Your task to perform on an android device: Show me productivity apps on the Play Store Image 0: 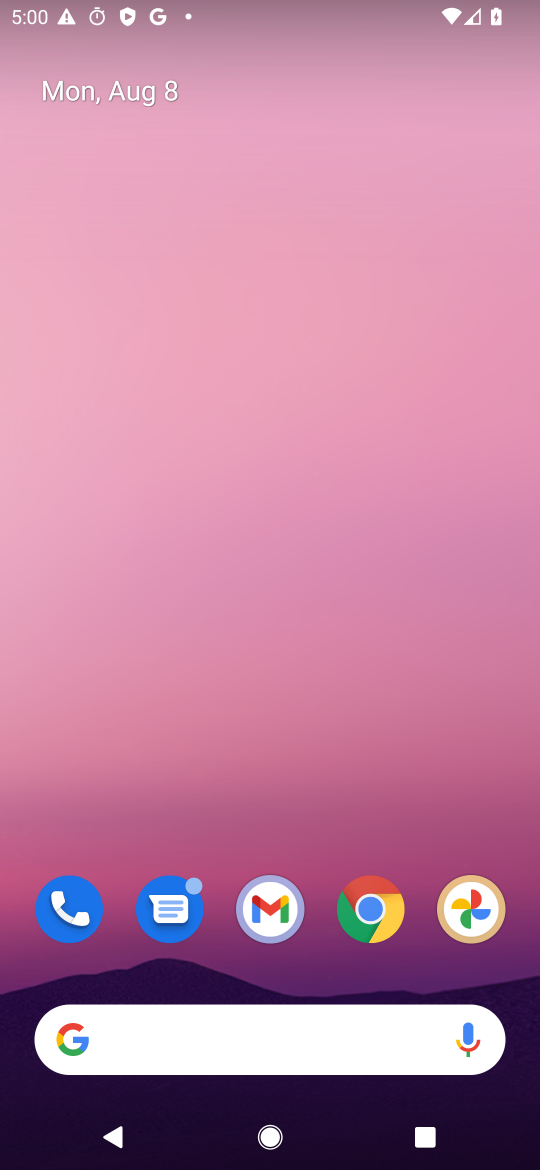
Step 0: drag from (311, 1020) to (412, 26)
Your task to perform on an android device: Show me productivity apps on the Play Store Image 1: 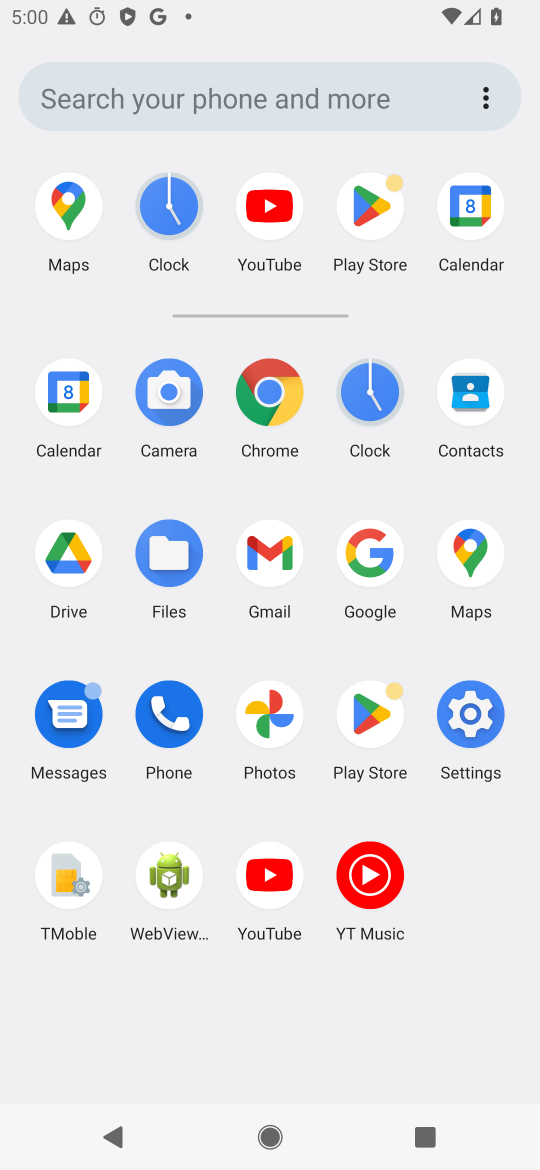
Step 1: click (382, 723)
Your task to perform on an android device: Show me productivity apps on the Play Store Image 2: 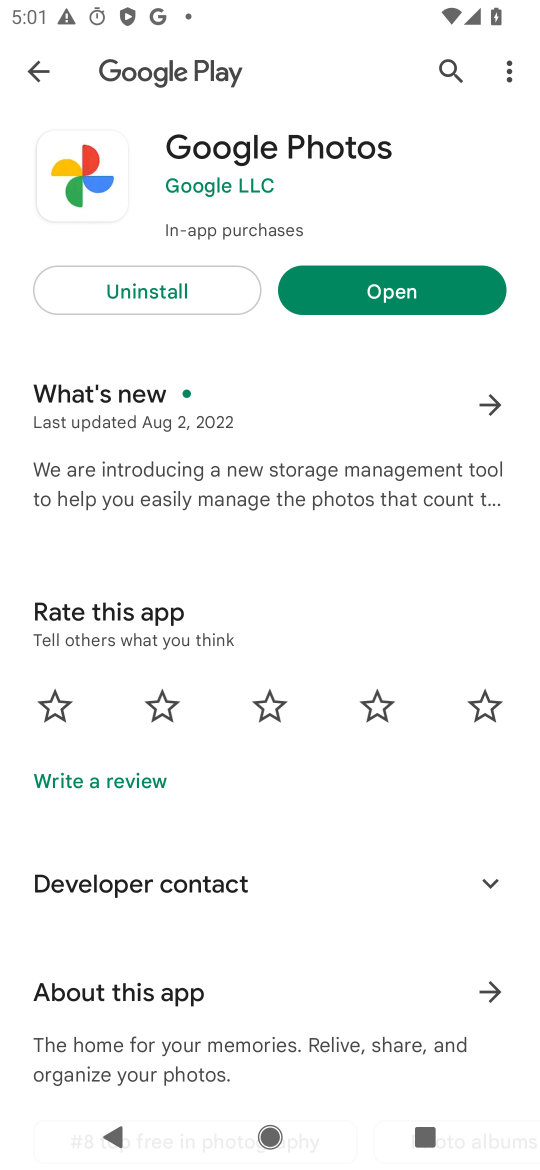
Step 2: click (49, 61)
Your task to perform on an android device: Show me productivity apps on the Play Store Image 3: 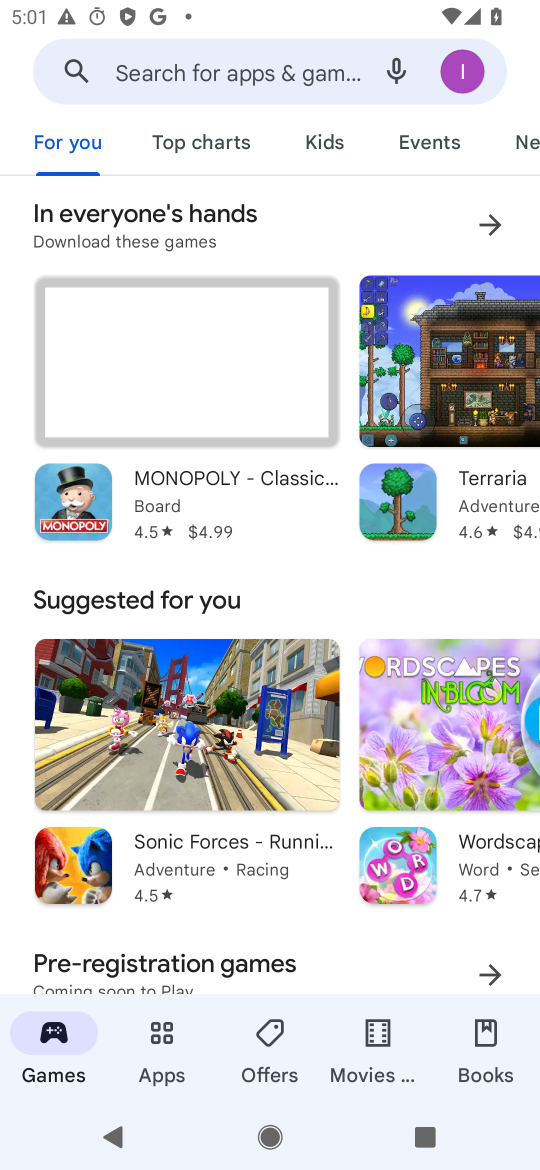
Step 3: click (159, 1036)
Your task to perform on an android device: Show me productivity apps on the Play Store Image 4: 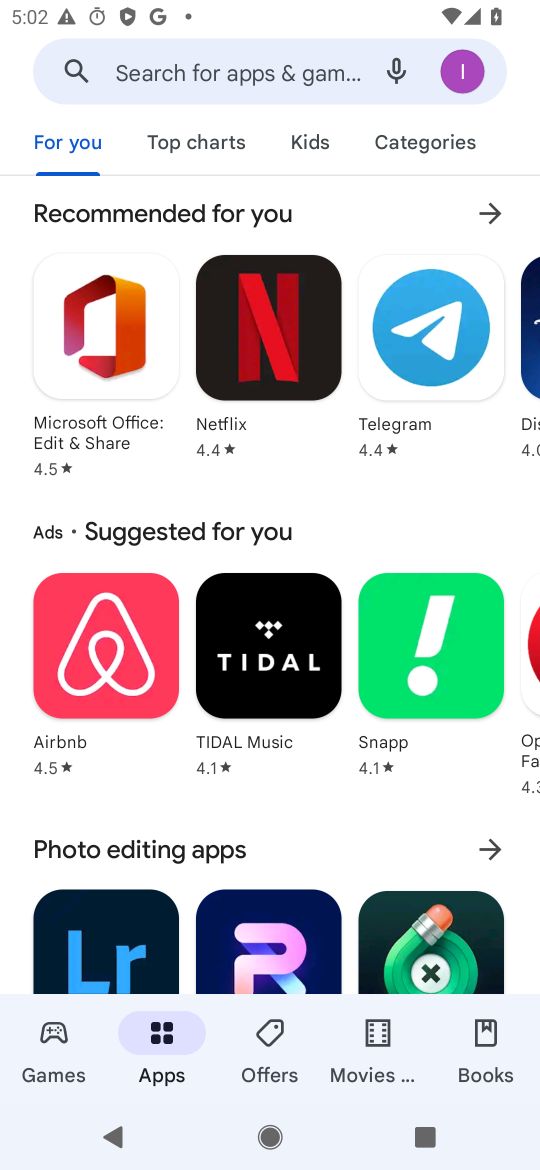
Step 4: click (408, 140)
Your task to perform on an android device: Show me productivity apps on the Play Store Image 5: 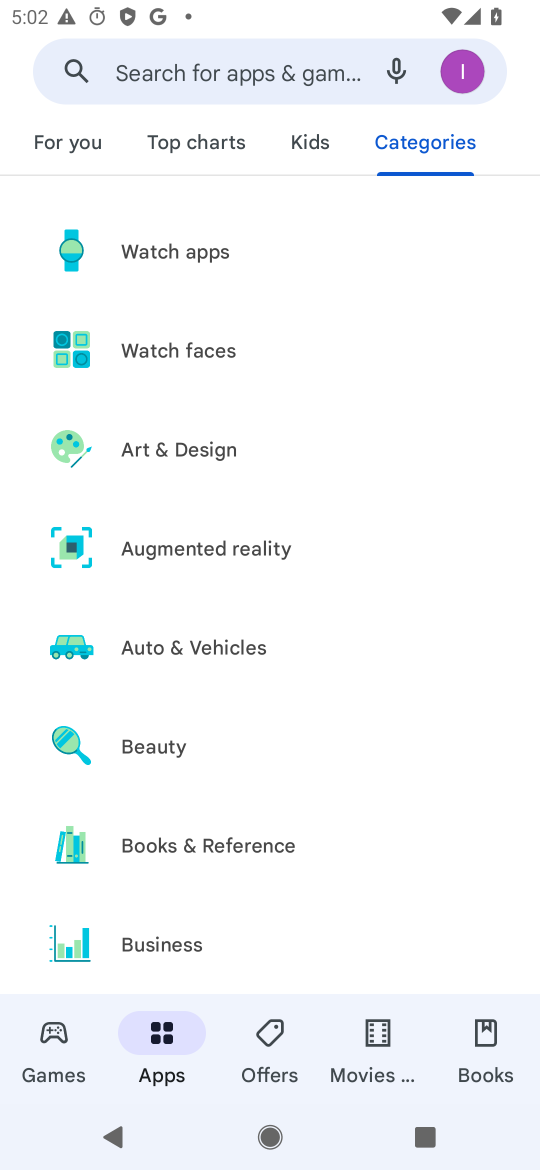
Step 5: drag from (339, 876) to (332, 72)
Your task to perform on an android device: Show me productivity apps on the Play Store Image 6: 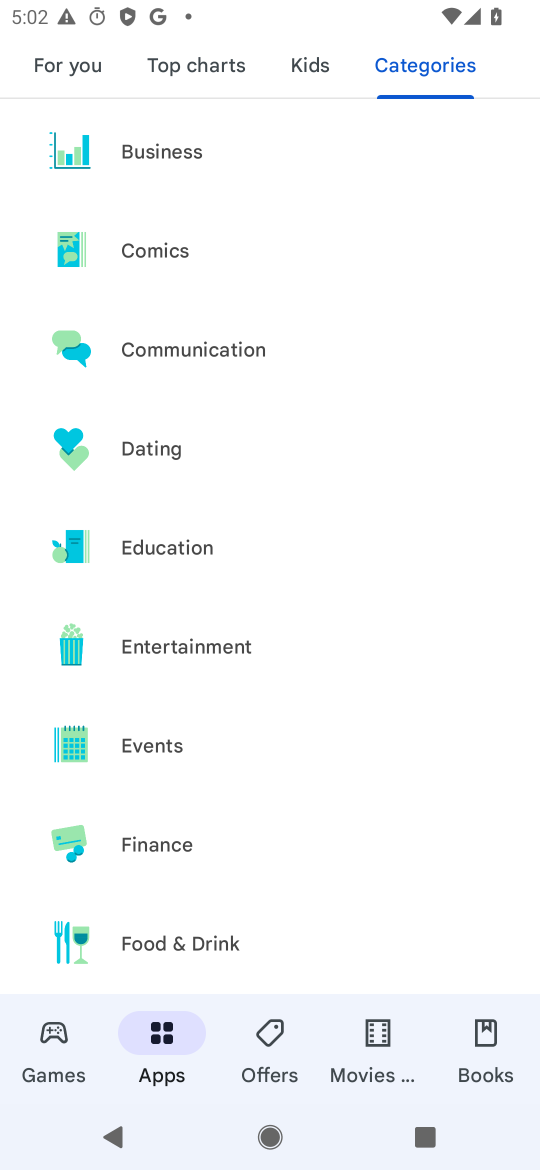
Step 6: drag from (310, 914) to (312, 37)
Your task to perform on an android device: Show me productivity apps on the Play Store Image 7: 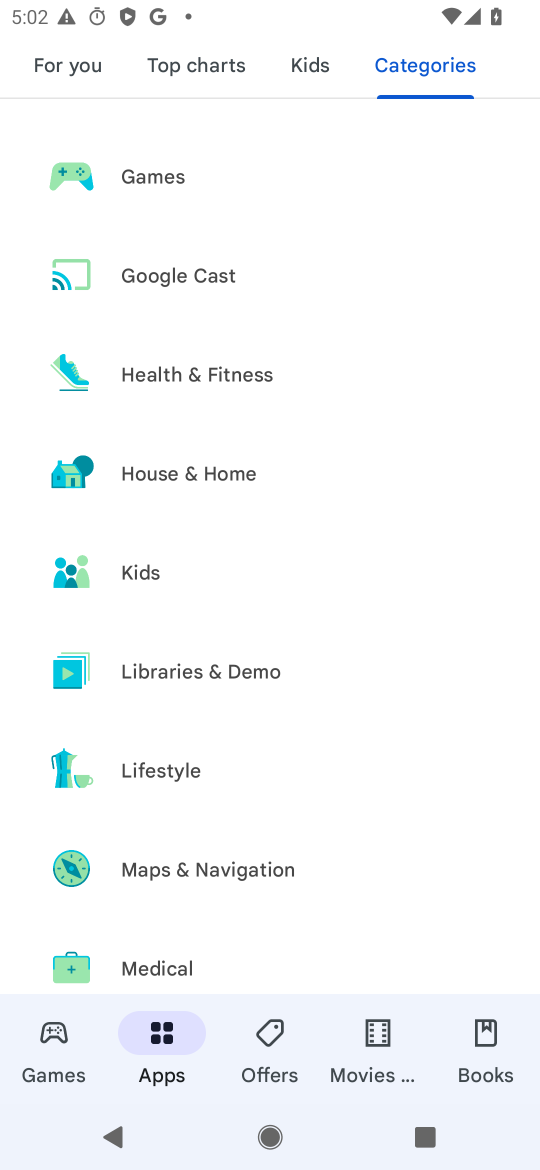
Step 7: drag from (304, 567) to (323, 24)
Your task to perform on an android device: Show me productivity apps on the Play Store Image 8: 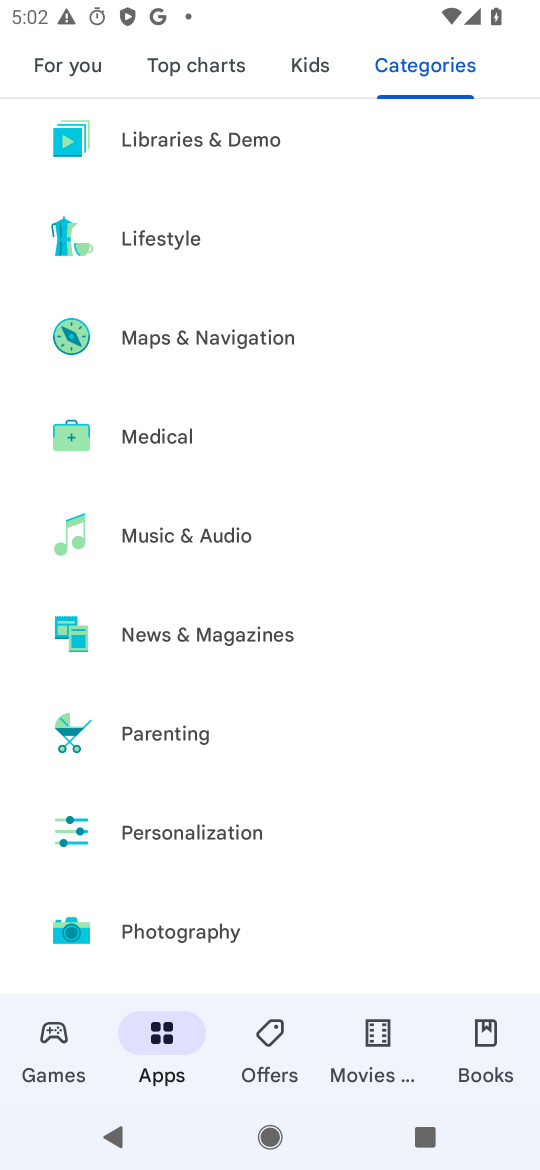
Step 8: drag from (266, 885) to (355, 97)
Your task to perform on an android device: Show me productivity apps on the Play Store Image 9: 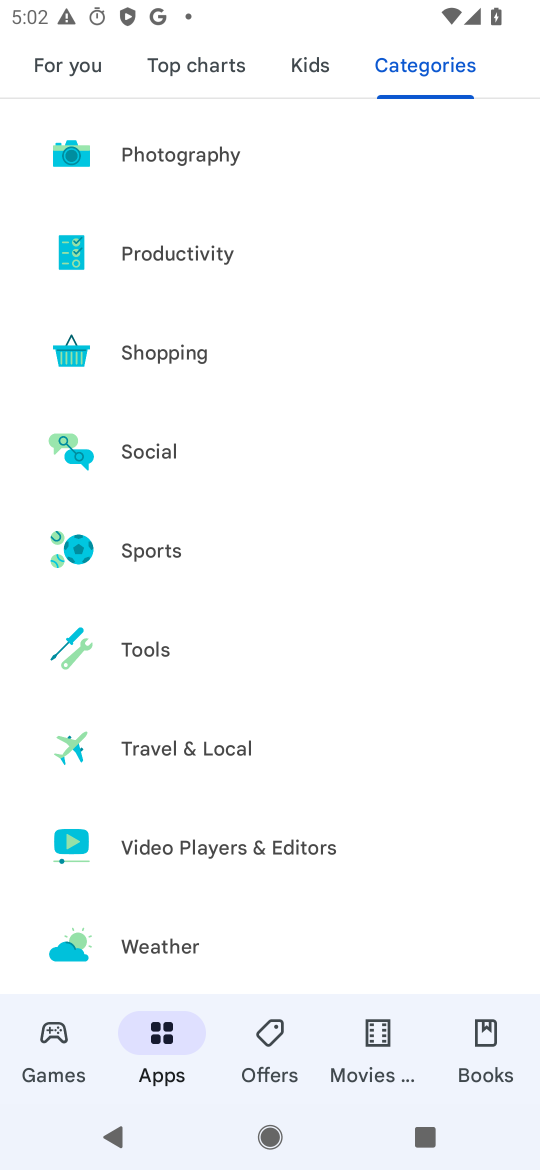
Step 9: click (189, 246)
Your task to perform on an android device: Show me productivity apps on the Play Store Image 10: 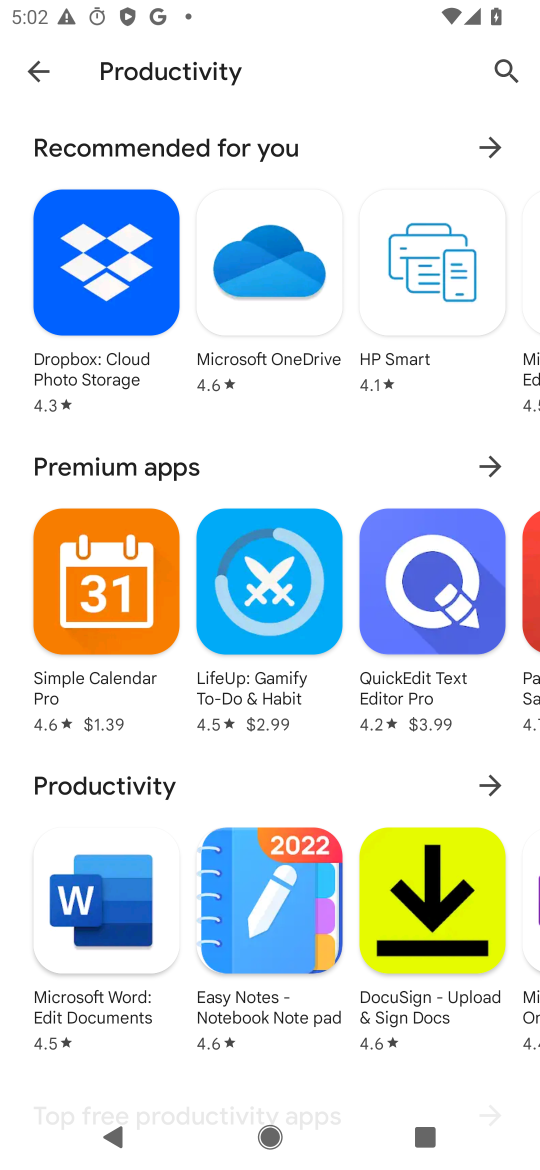
Step 10: task complete